Your task to perform on an android device: clear history in the chrome app Image 0: 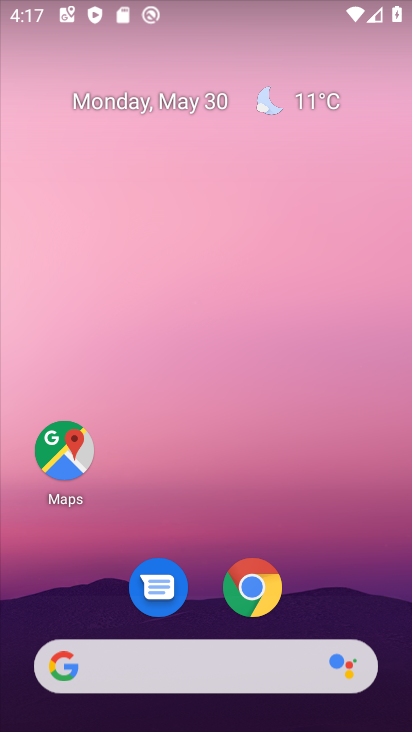
Step 0: drag from (357, 595) to (305, 245)
Your task to perform on an android device: clear history in the chrome app Image 1: 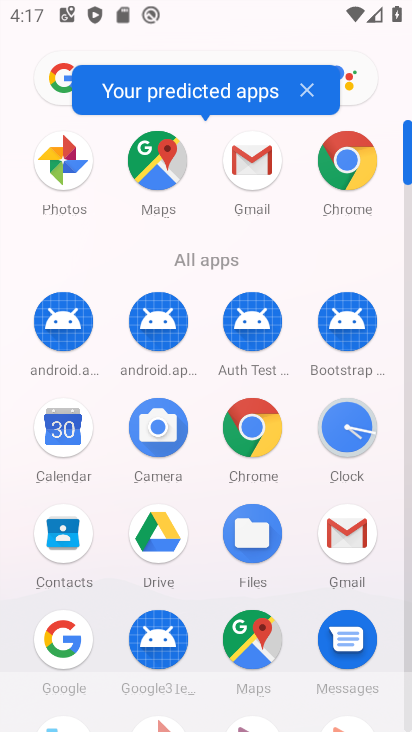
Step 1: click (362, 156)
Your task to perform on an android device: clear history in the chrome app Image 2: 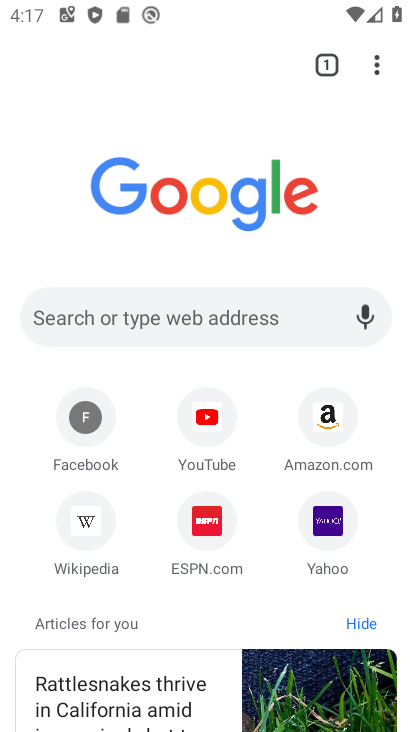
Step 2: click (371, 45)
Your task to perform on an android device: clear history in the chrome app Image 3: 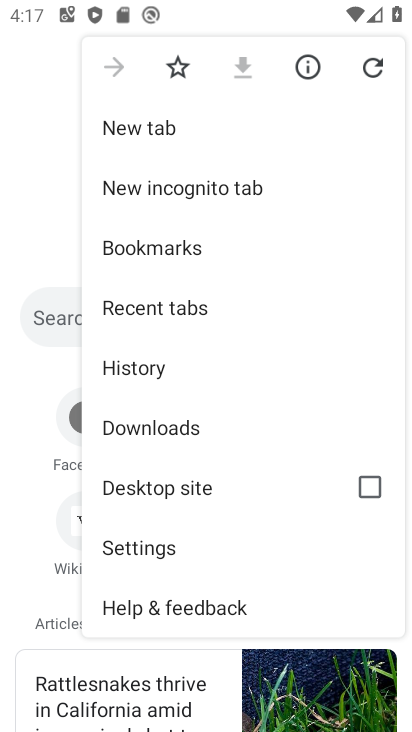
Step 3: click (217, 362)
Your task to perform on an android device: clear history in the chrome app Image 4: 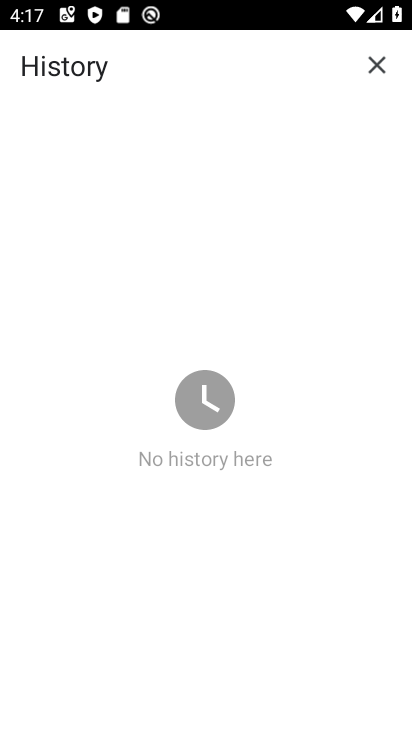
Step 4: task complete